Your task to perform on an android device: star an email in the gmail app Image 0: 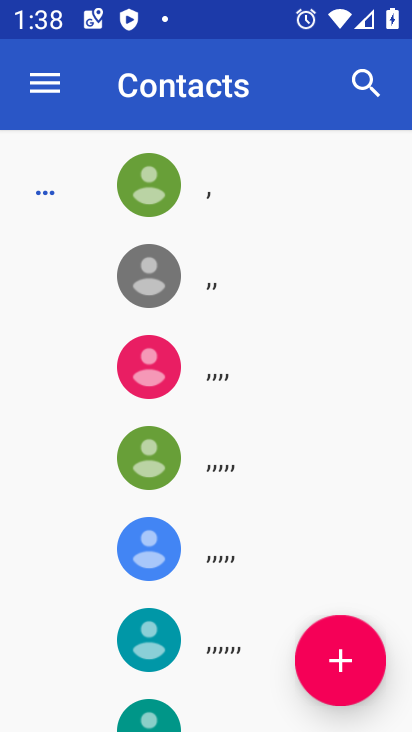
Step 0: press home button
Your task to perform on an android device: star an email in the gmail app Image 1: 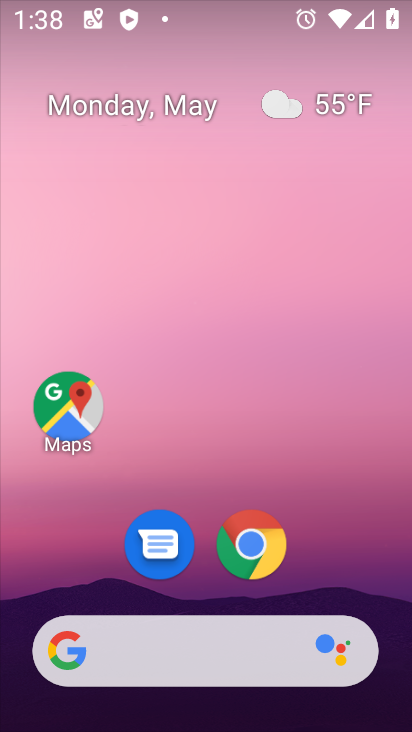
Step 1: drag from (395, 594) to (290, 20)
Your task to perform on an android device: star an email in the gmail app Image 2: 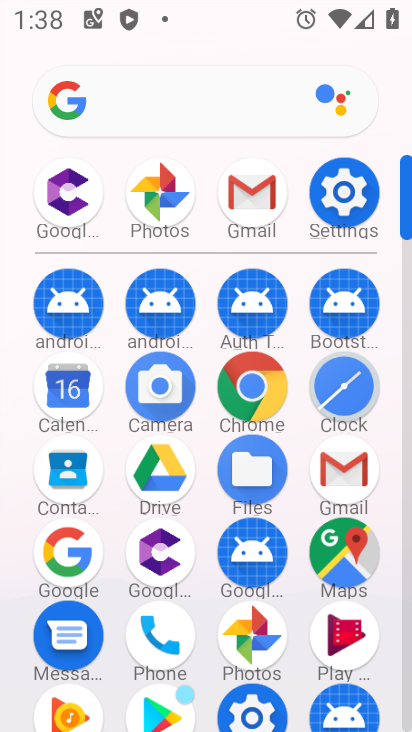
Step 2: click (407, 703)
Your task to perform on an android device: star an email in the gmail app Image 3: 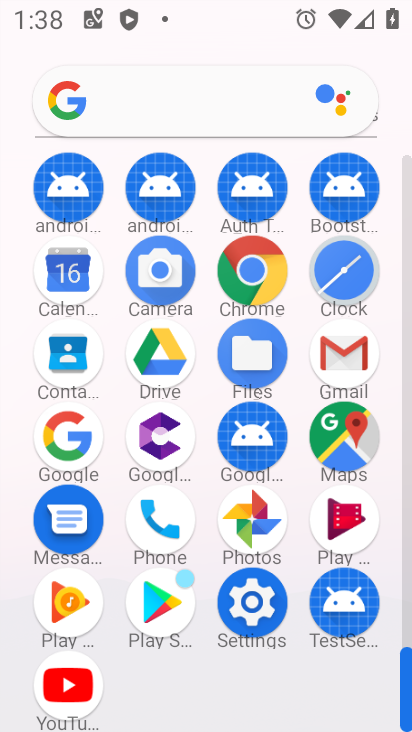
Step 3: click (346, 353)
Your task to perform on an android device: star an email in the gmail app Image 4: 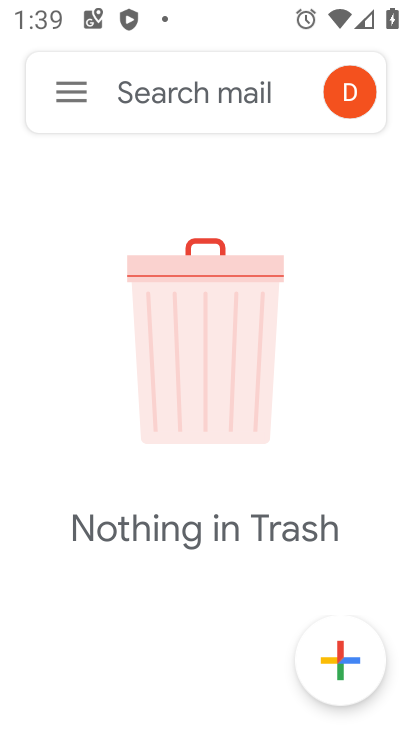
Step 4: click (67, 91)
Your task to perform on an android device: star an email in the gmail app Image 5: 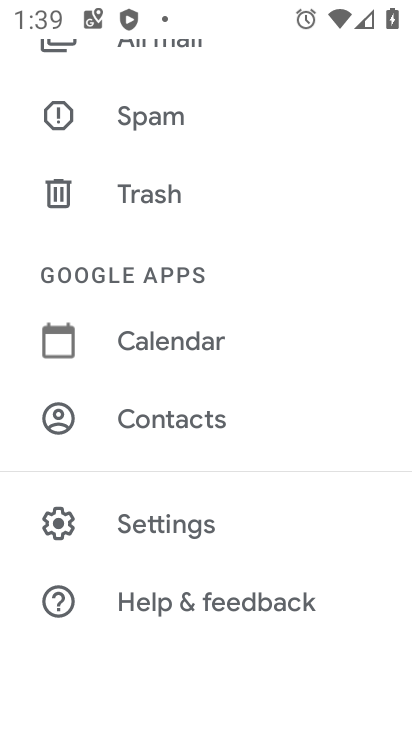
Step 5: drag from (303, 329) to (275, 530)
Your task to perform on an android device: star an email in the gmail app Image 6: 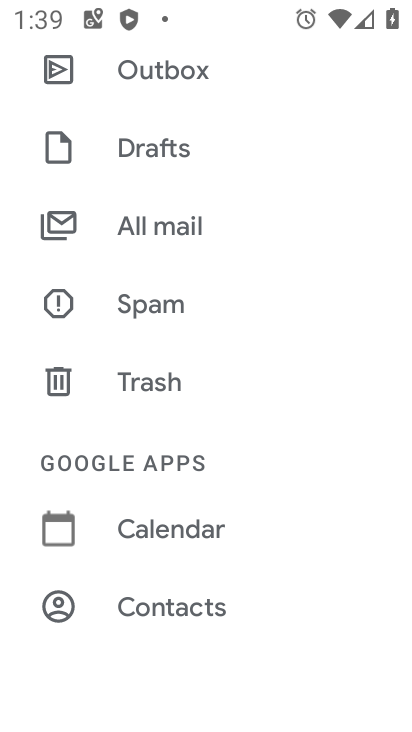
Step 6: drag from (319, 168) to (258, 359)
Your task to perform on an android device: star an email in the gmail app Image 7: 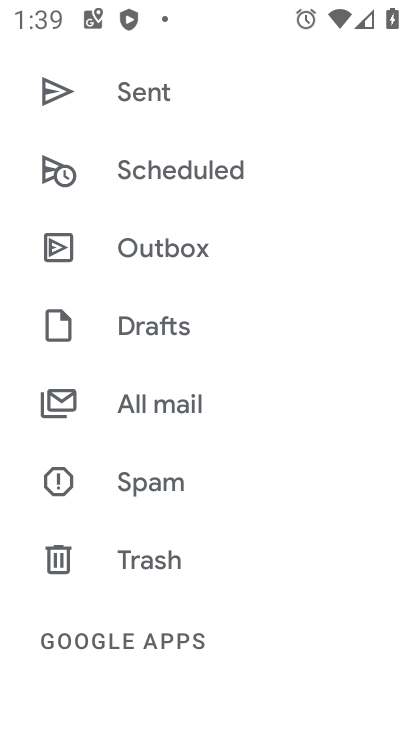
Step 7: click (138, 408)
Your task to perform on an android device: star an email in the gmail app Image 8: 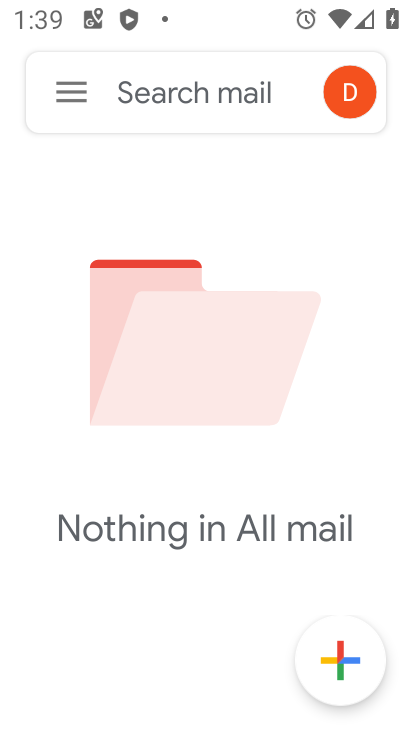
Step 8: task complete